Your task to perform on an android device: add a contact in the contacts app Image 0: 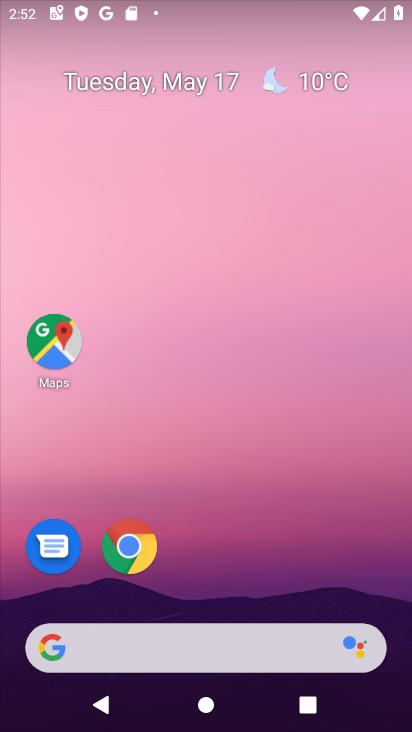
Step 0: drag from (244, 585) to (301, 118)
Your task to perform on an android device: add a contact in the contacts app Image 1: 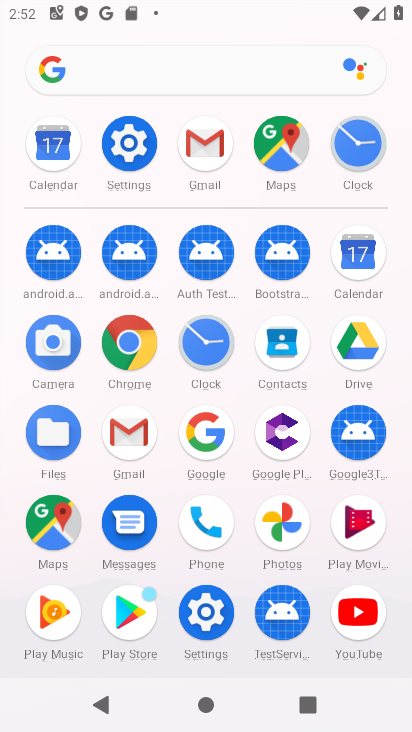
Step 1: click (278, 336)
Your task to perform on an android device: add a contact in the contacts app Image 2: 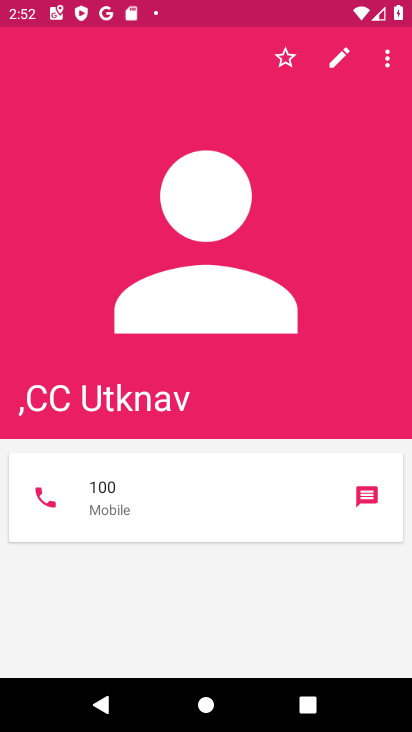
Step 2: press back button
Your task to perform on an android device: add a contact in the contacts app Image 3: 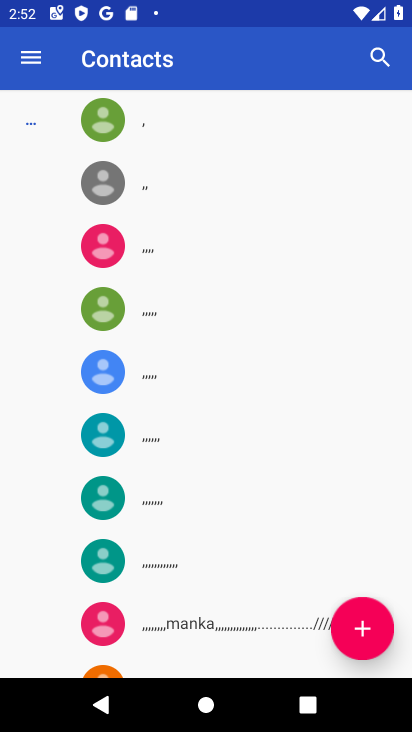
Step 3: click (374, 624)
Your task to perform on an android device: add a contact in the contacts app Image 4: 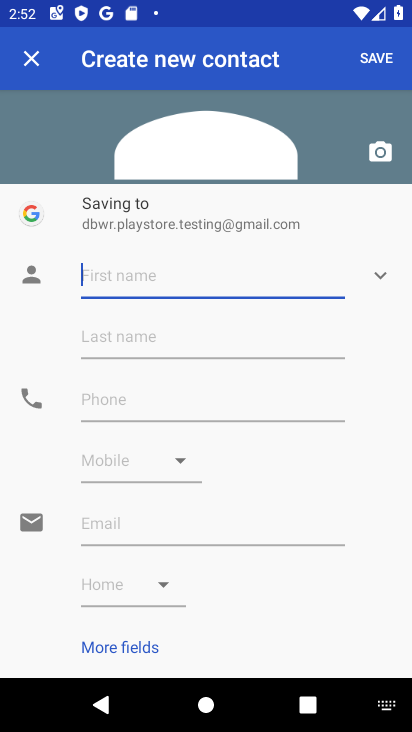
Step 4: type "MCBC"
Your task to perform on an android device: add a contact in the contacts app Image 5: 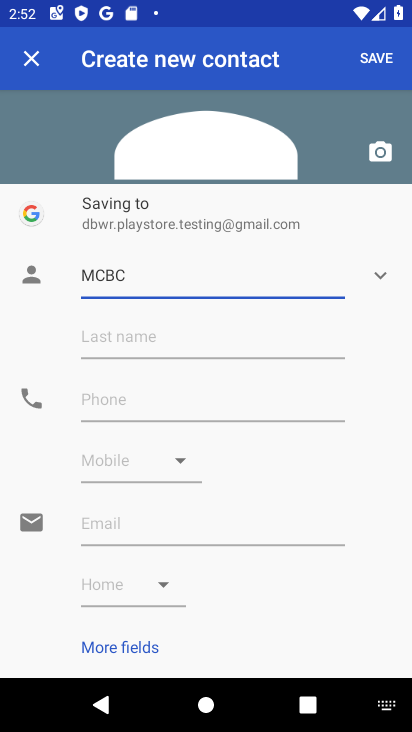
Step 5: click (379, 52)
Your task to perform on an android device: add a contact in the contacts app Image 6: 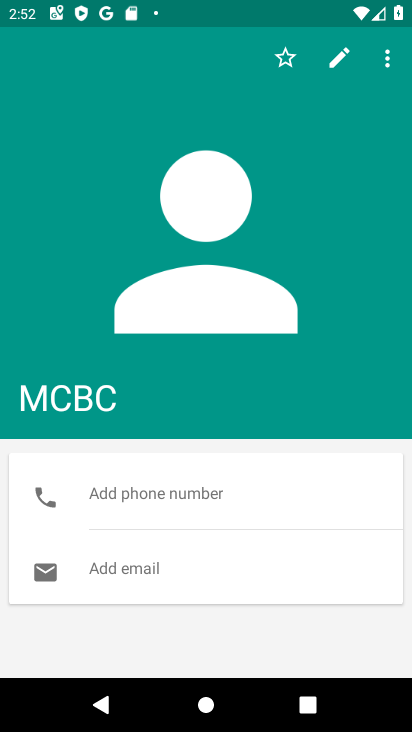
Step 6: task complete